Your task to perform on an android device: check out phone information Image 0: 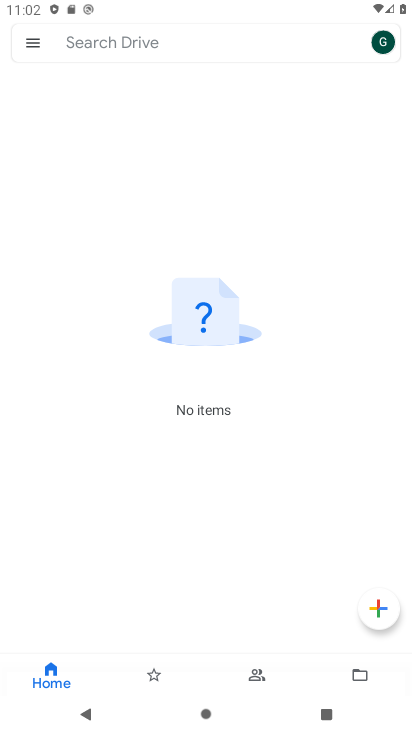
Step 0: press home button
Your task to perform on an android device: check out phone information Image 1: 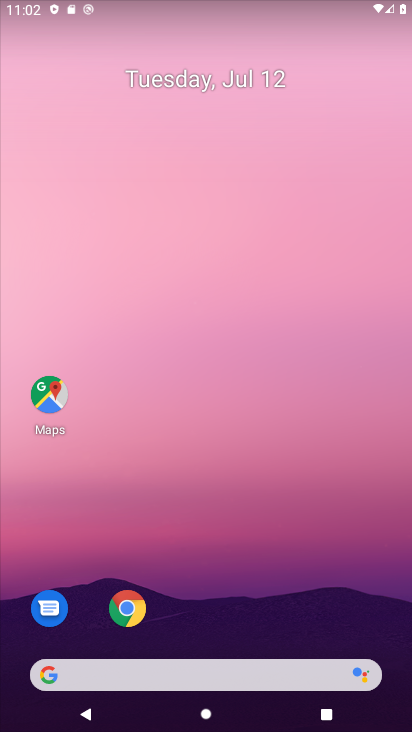
Step 1: drag from (186, 714) to (187, 151)
Your task to perform on an android device: check out phone information Image 2: 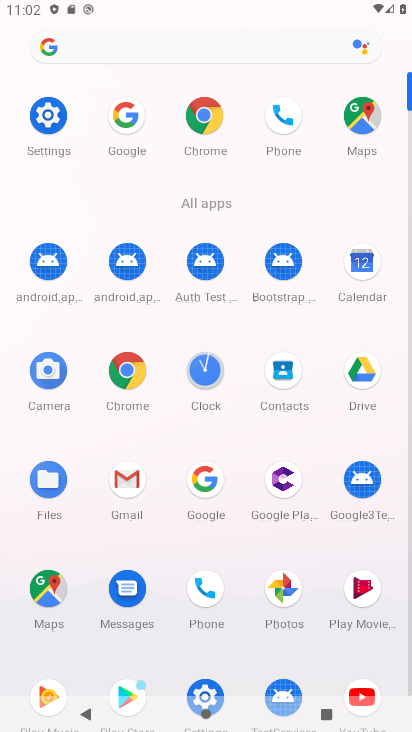
Step 2: click (49, 118)
Your task to perform on an android device: check out phone information Image 3: 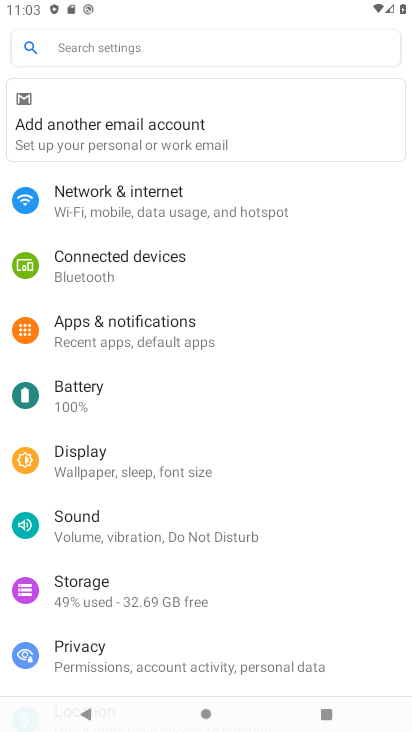
Step 3: drag from (127, 640) to (127, 195)
Your task to perform on an android device: check out phone information Image 4: 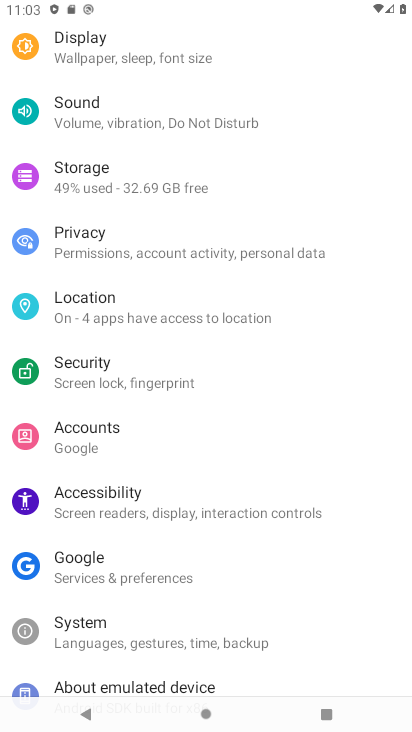
Step 4: drag from (145, 661) to (145, 245)
Your task to perform on an android device: check out phone information Image 5: 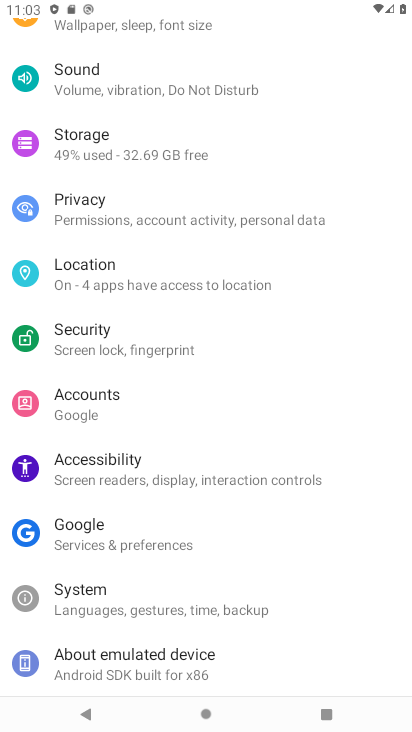
Step 5: click (107, 661)
Your task to perform on an android device: check out phone information Image 6: 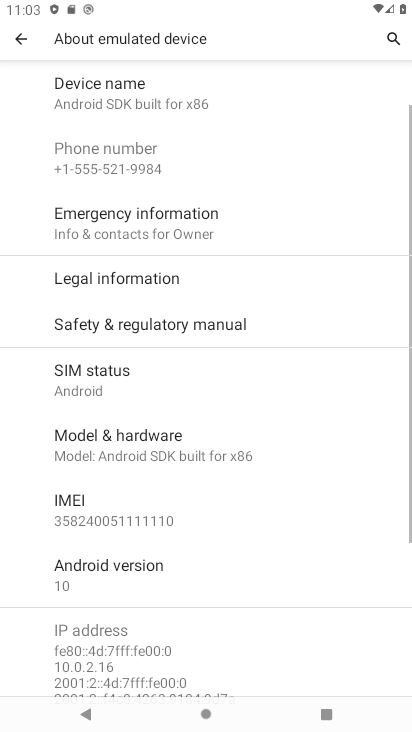
Step 6: task complete